Your task to perform on an android device: turn off translation in the chrome app Image 0: 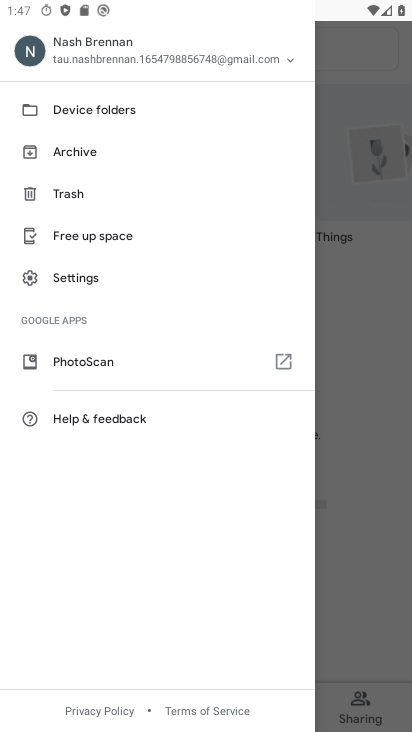
Step 0: press home button
Your task to perform on an android device: turn off translation in the chrome app Image 1: 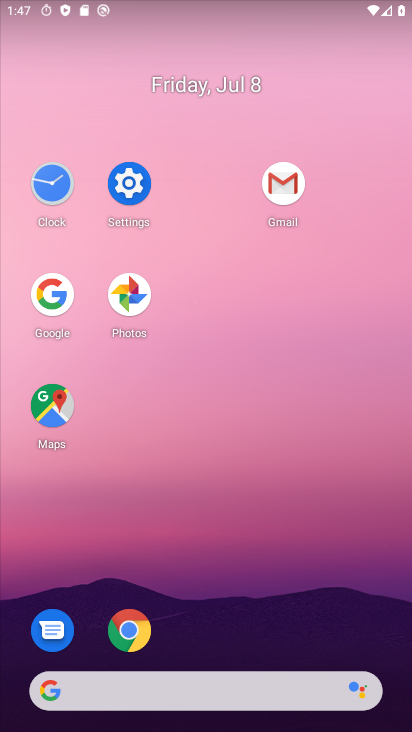
Step 1: click (124, 627)
Your task to perform on an android device: turn off translation in the chrome app Image 2: 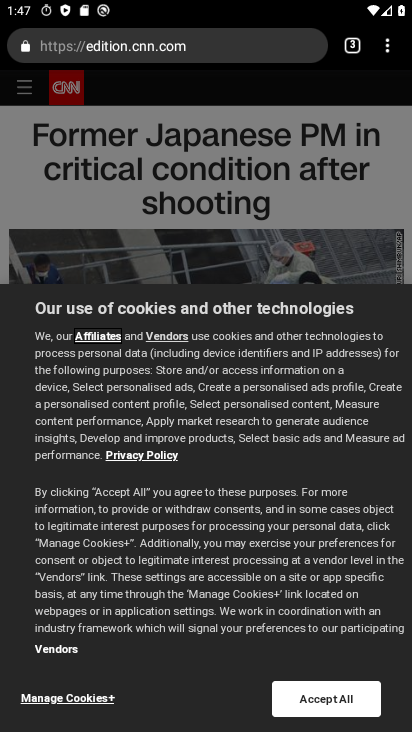
Step 2: click (390, 39)
Your task to perform on an android device: turn off translation in the chrome app Image 3: 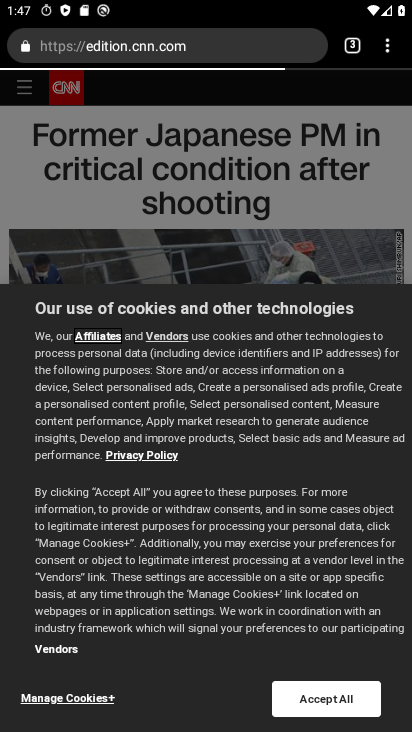
Step 3: click (383, 53)
Your task to perform on an android device: turn off translation in the chrome app Image 4: 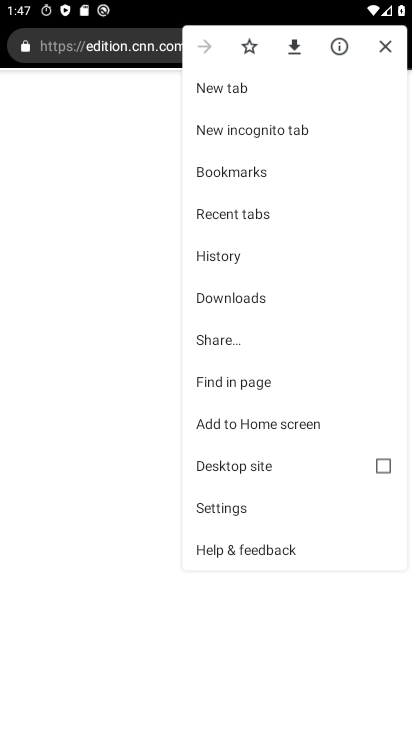
Step 4: click (269, 509)
Your task to perform on an android device: turn off translation in the chrome app Image 5: 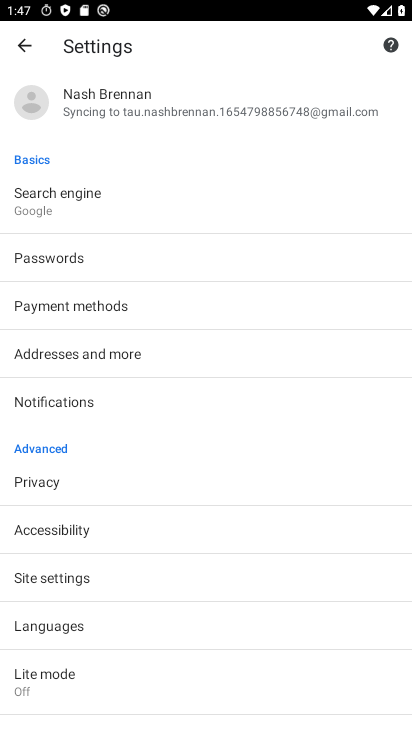
Step 5: click (161, 622)
Your task to perform on an android device: turn off translation in the chrome app Image 6: 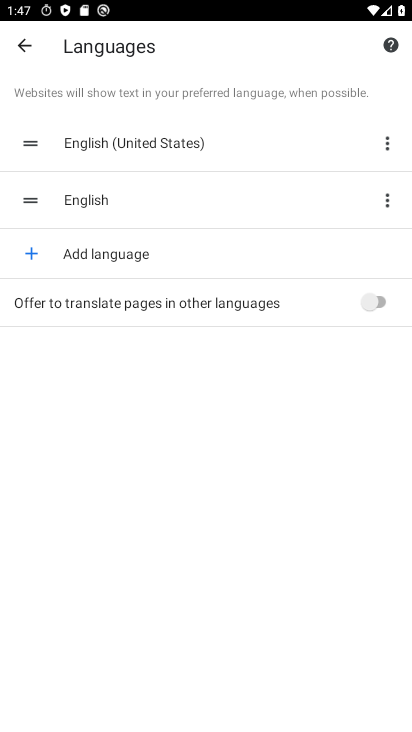
Step 6: task complete